Your task to perform on an android device: Go to settings Image 0: 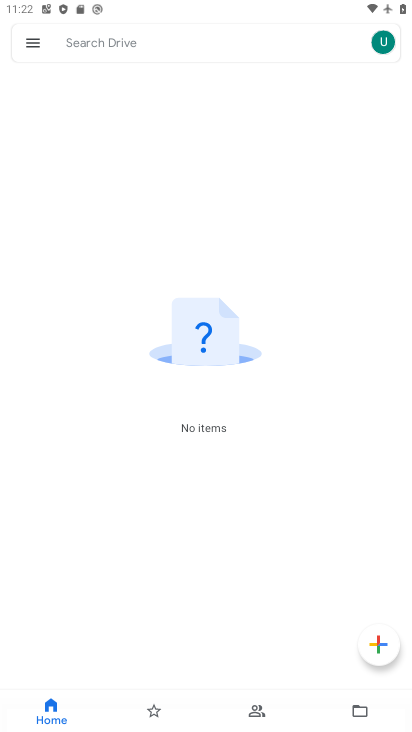
Step 0: press home button
Your task to perform on an android device: Go to settings Image 1: 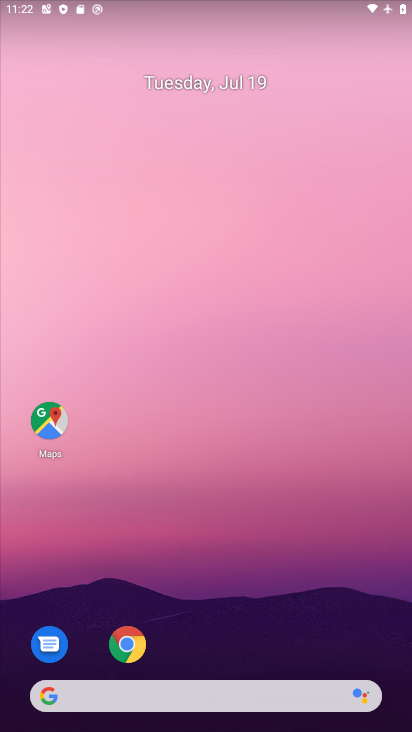
Step 1: drag from (15, 680) to (136, 203)
Your task to perform on an android device: Go to settings Image 2: 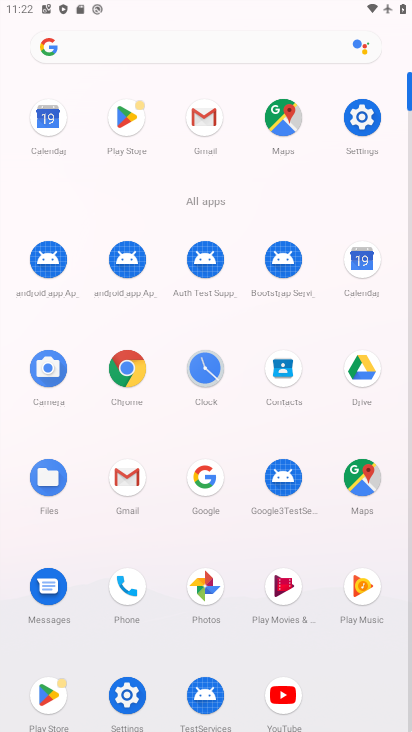
Step 2: click (103, 698)
Your task to perform on an android device: Go to settings Image 3: 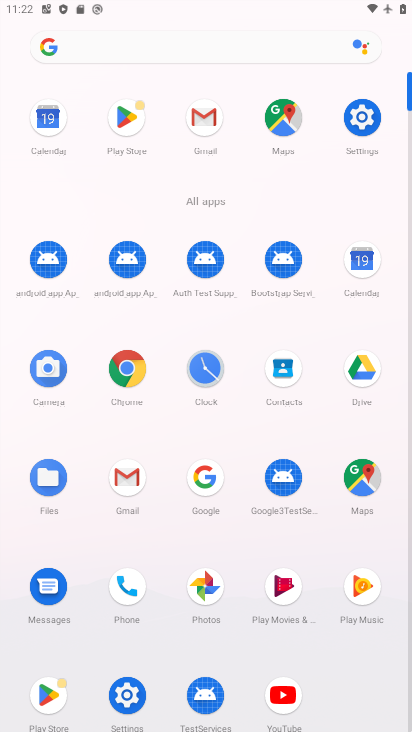
Step 3: click (115, 696)
Your task to perform on an android device: Go to settings Image 4: 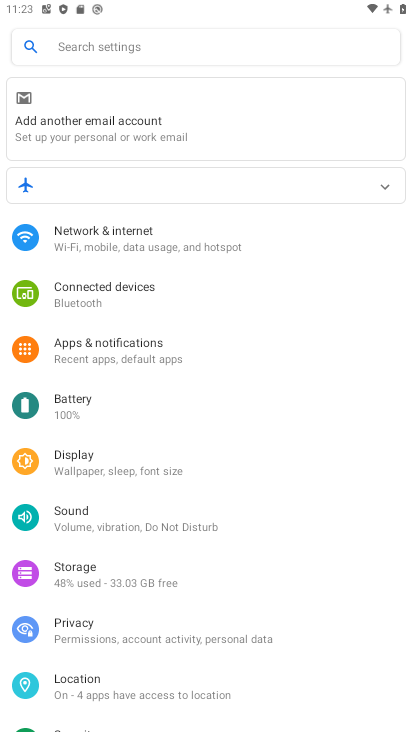
Step 4: task complete